Your task to perform on an android device: delete the emails in spam in the gmail app Image 0: 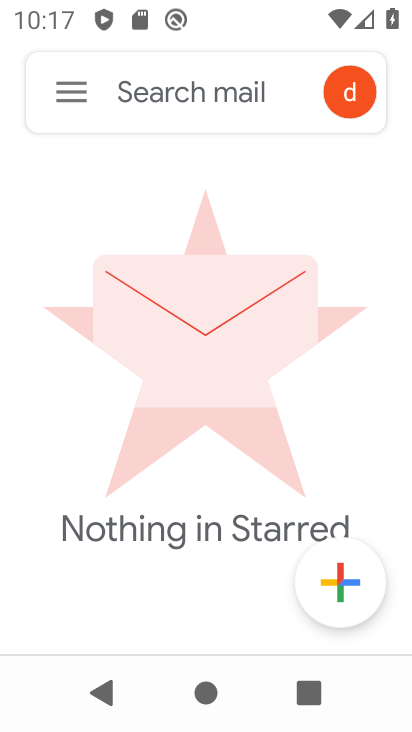
Step 0: press home button
Your task to perform on an android device: delete the emails in spam in the gmail app Image 1: 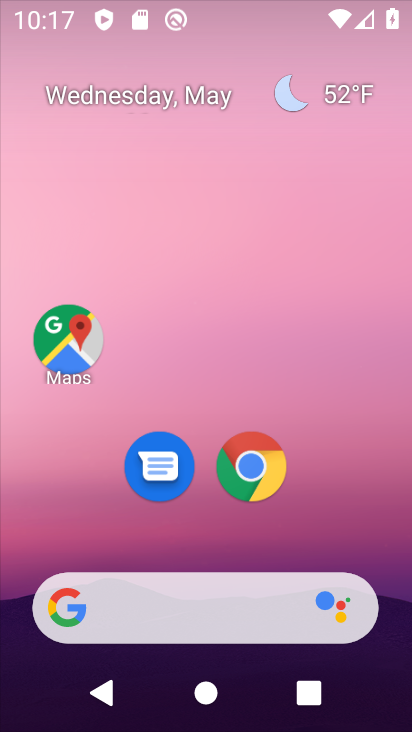
Step 1: drag from (218, 545) to (226, 127)
Your task to perform on an android device: delete the emails in spam in the gmail app Image 2: 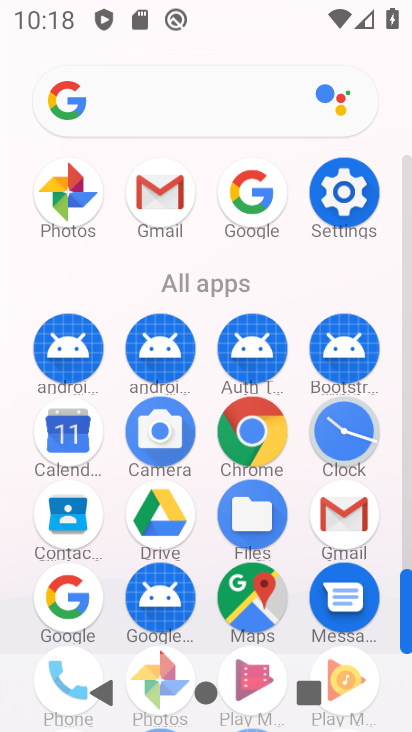
Step 2: click (151, 193)
Your task to perform on an android device: delete the emails in spam in the gmail app Image 3: 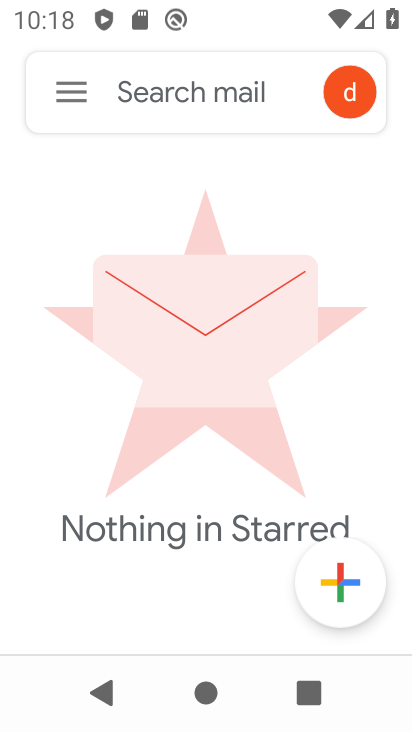
Step 3: click (60, 84)
Your task to perform on an android device: delete the emails in spam in the gmail app Image 4: 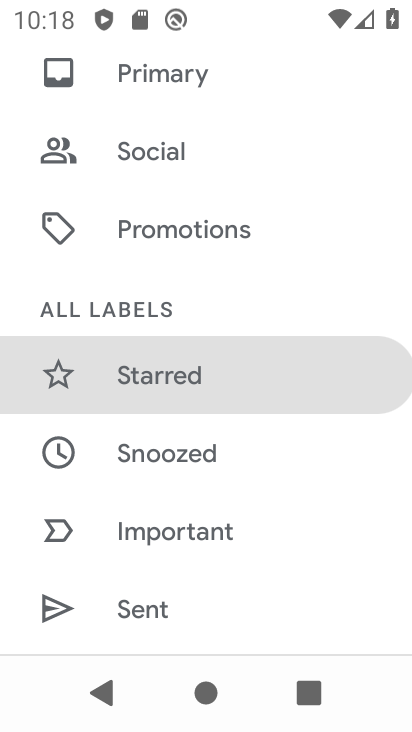
Step 4: drag from (182, 584) to (256, 0)
Your task to perform on an android device: delete the emails in spam in the gmail app Image 5: 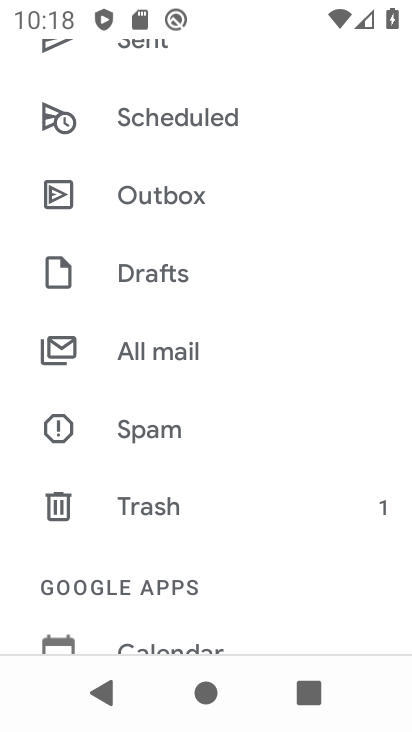
Step 5: click (174, 436)
Your task to perform on an android device: delete the emails in spam in the gmail app Image 6: 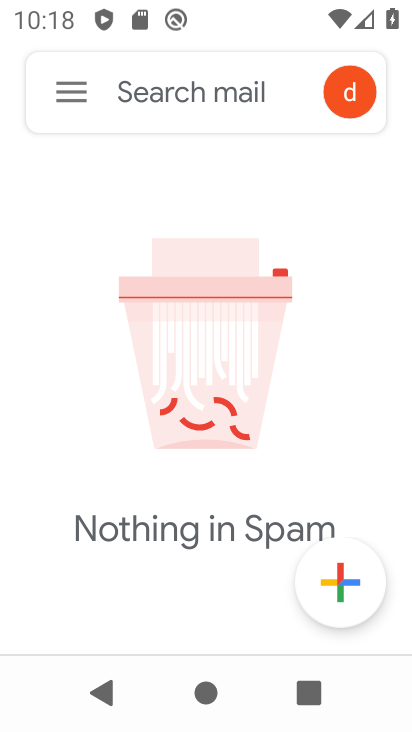
Step 6: task complete